Your task to perform on an android device: Open notification settings Image 0: 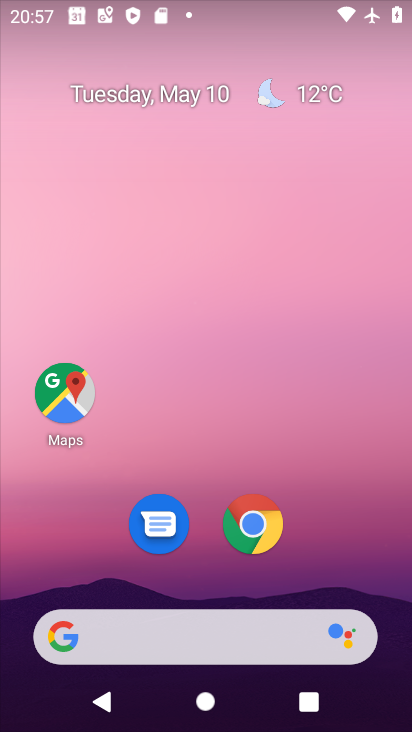
Step 0: drag from (325, 518) to (274, 39)
Your task to perform on an android device: Open notification settings Image 1: 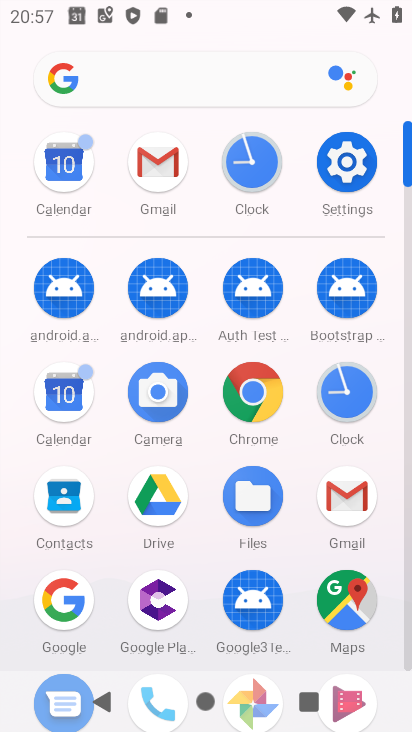
Step 1: click (345, 163)
Your task to perform on an android device: Open notification settings Image 2: 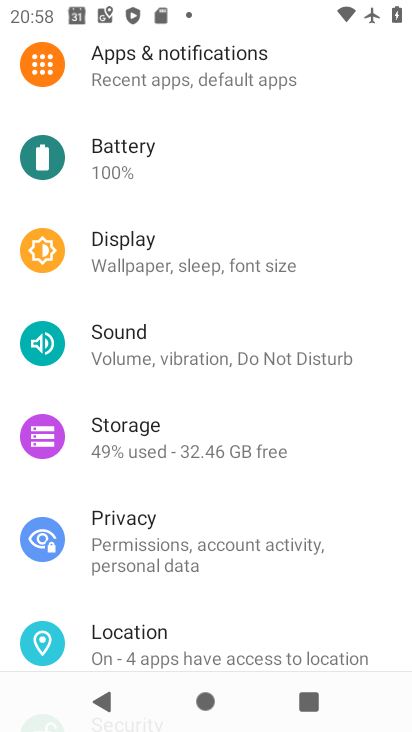
Step 2: click (227, 64)
Your task to perform on an android device: Open notification settings Image 3: 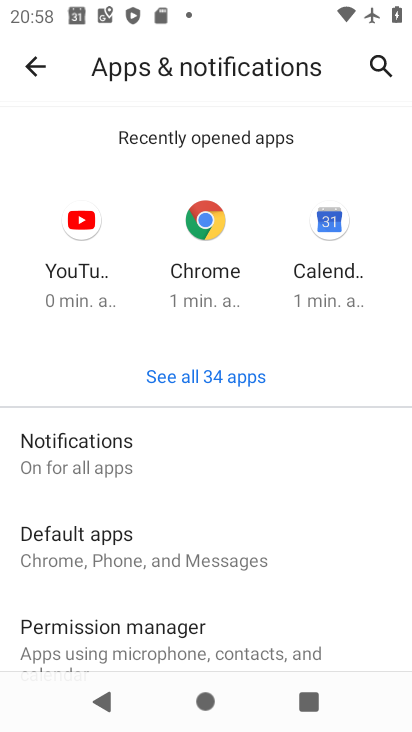
Step 3: click (154, 438)
Your task to perform on an android device: Open notification settings Image 4: 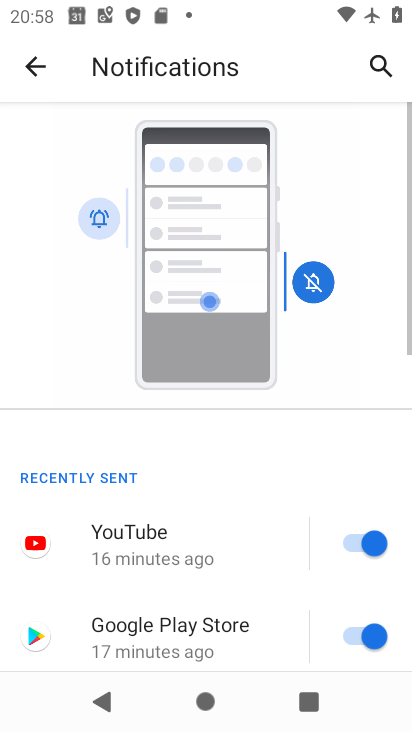
Step 4: task complete